Your task to perform on an android device: open chrome privacy settings Image 0: 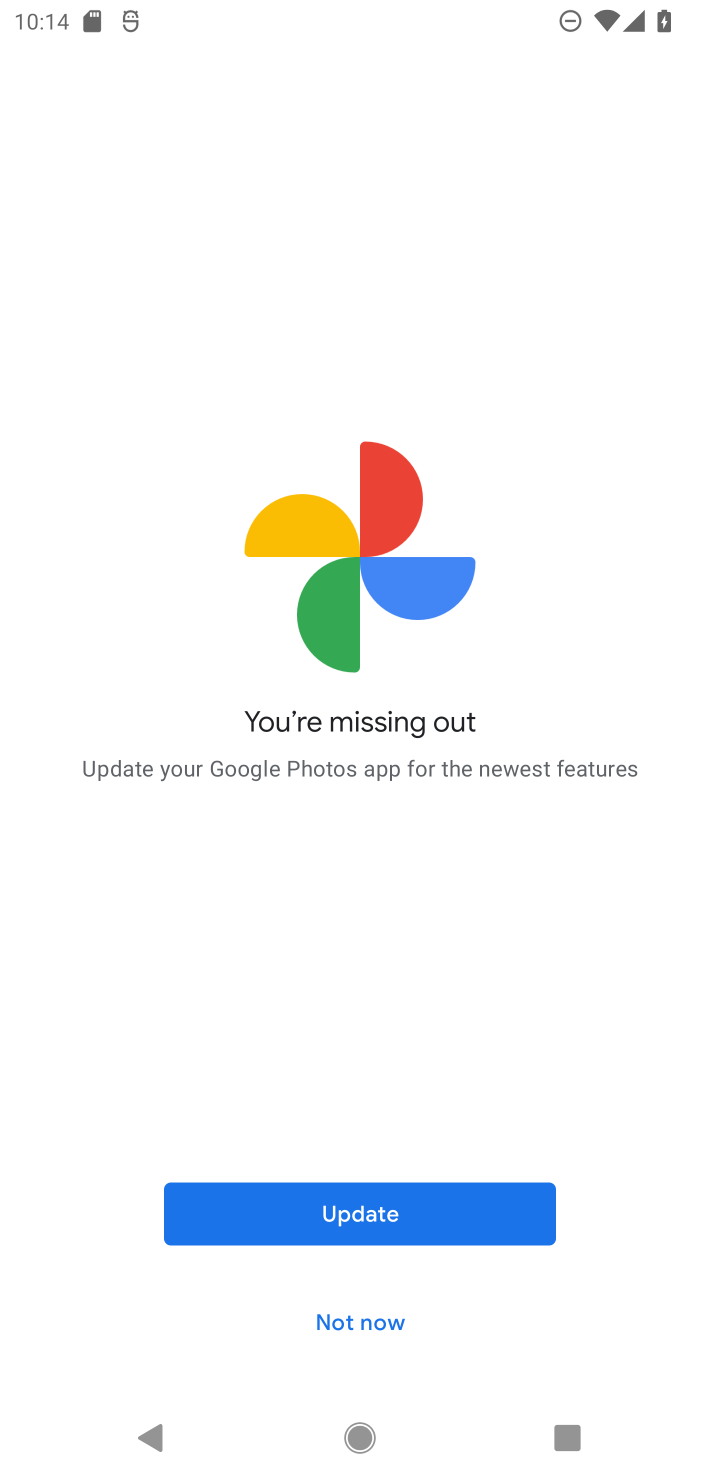
Step 0: click (352, 1427)
Your task to perform on an android device: open chrome privacy settings Image 1: 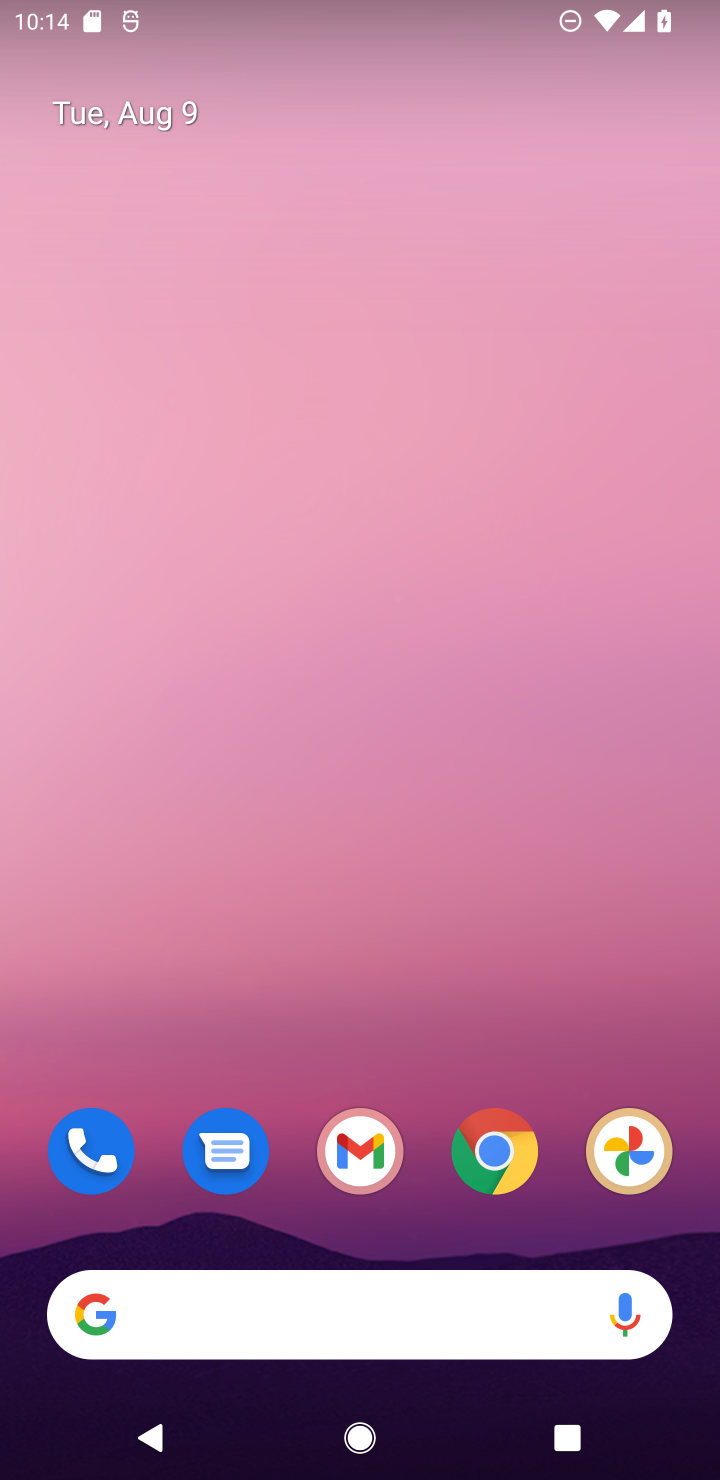
Step 1: click (513, 1149)
Your task to perform on an android device: open chrome privacy settings Image 2: 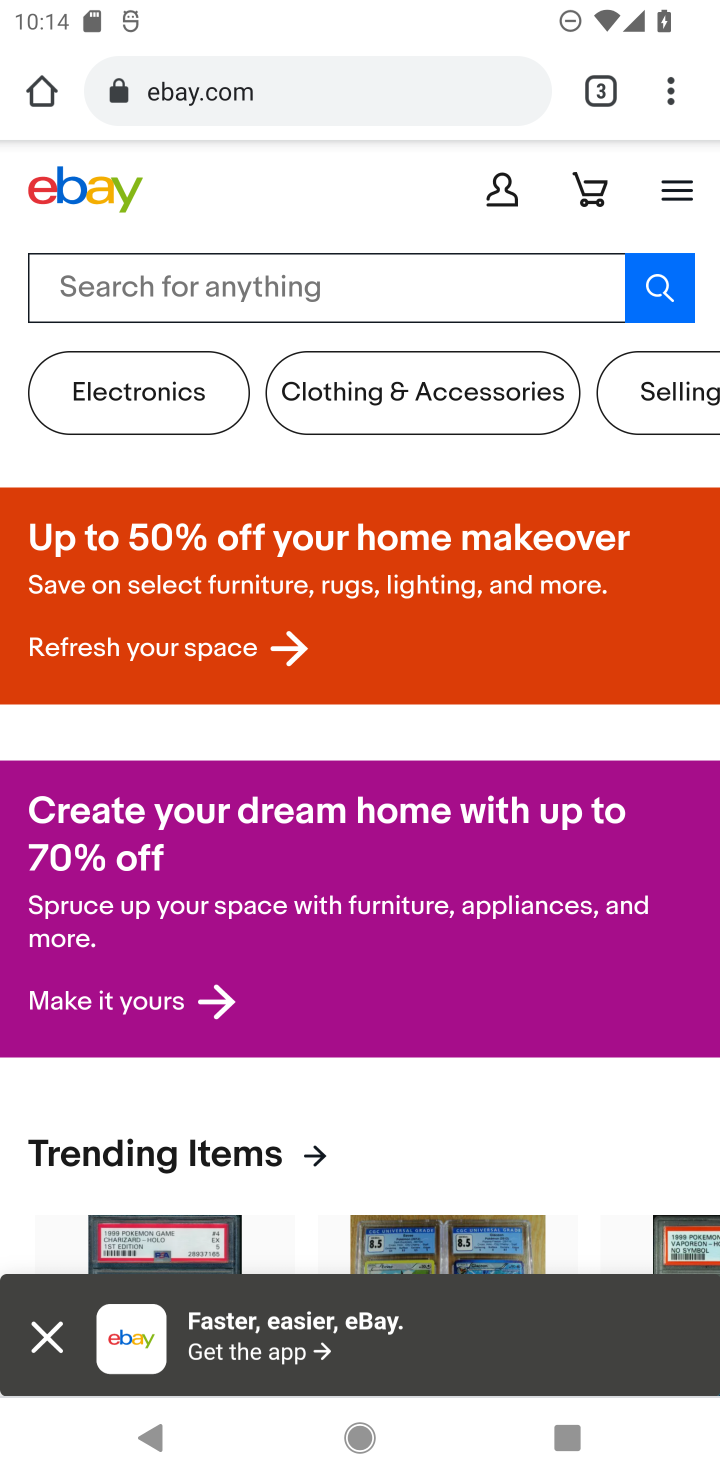
Step 2: click (658, 104)
Your task to perform on an android device: open chrome privacy settings Image 3: 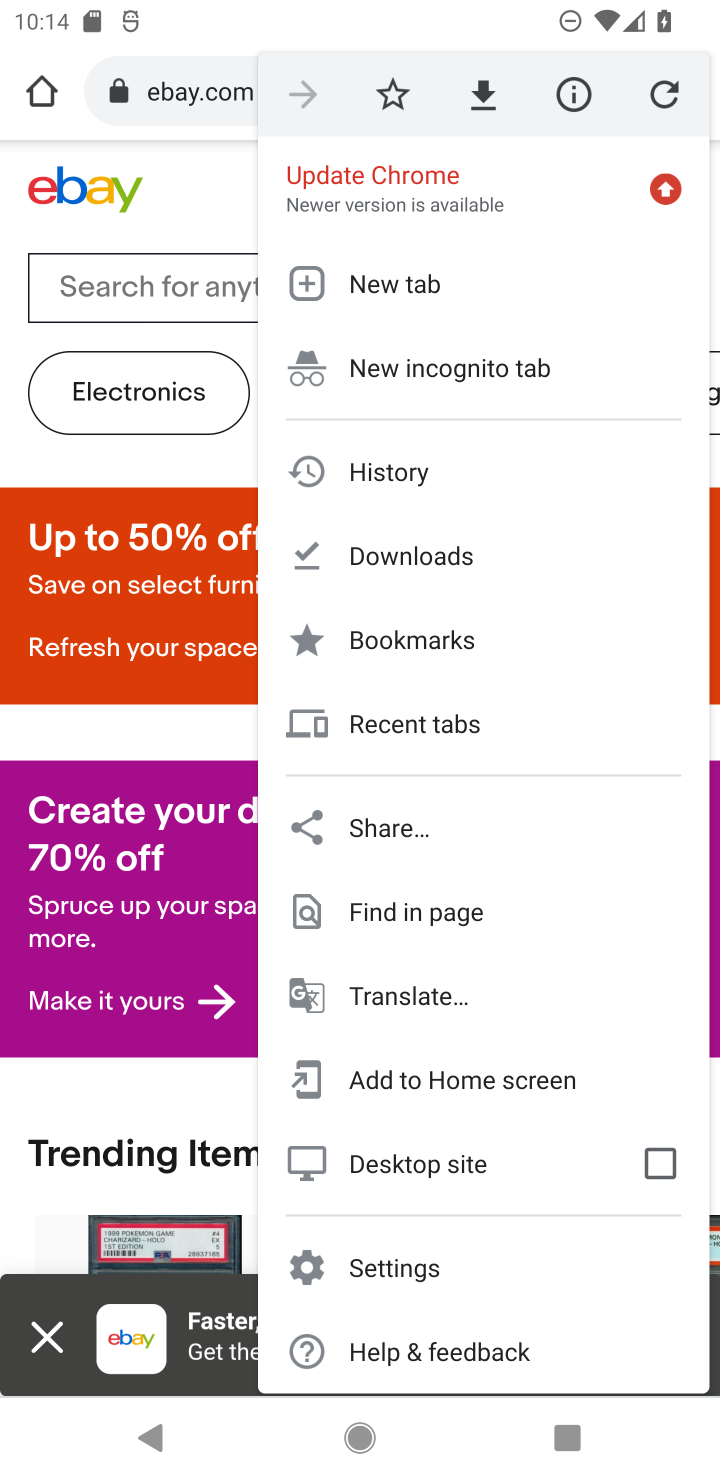
Step 3: click (401, 1254)
Your task to perform on an android device: open chrome privacy settings Image 4: 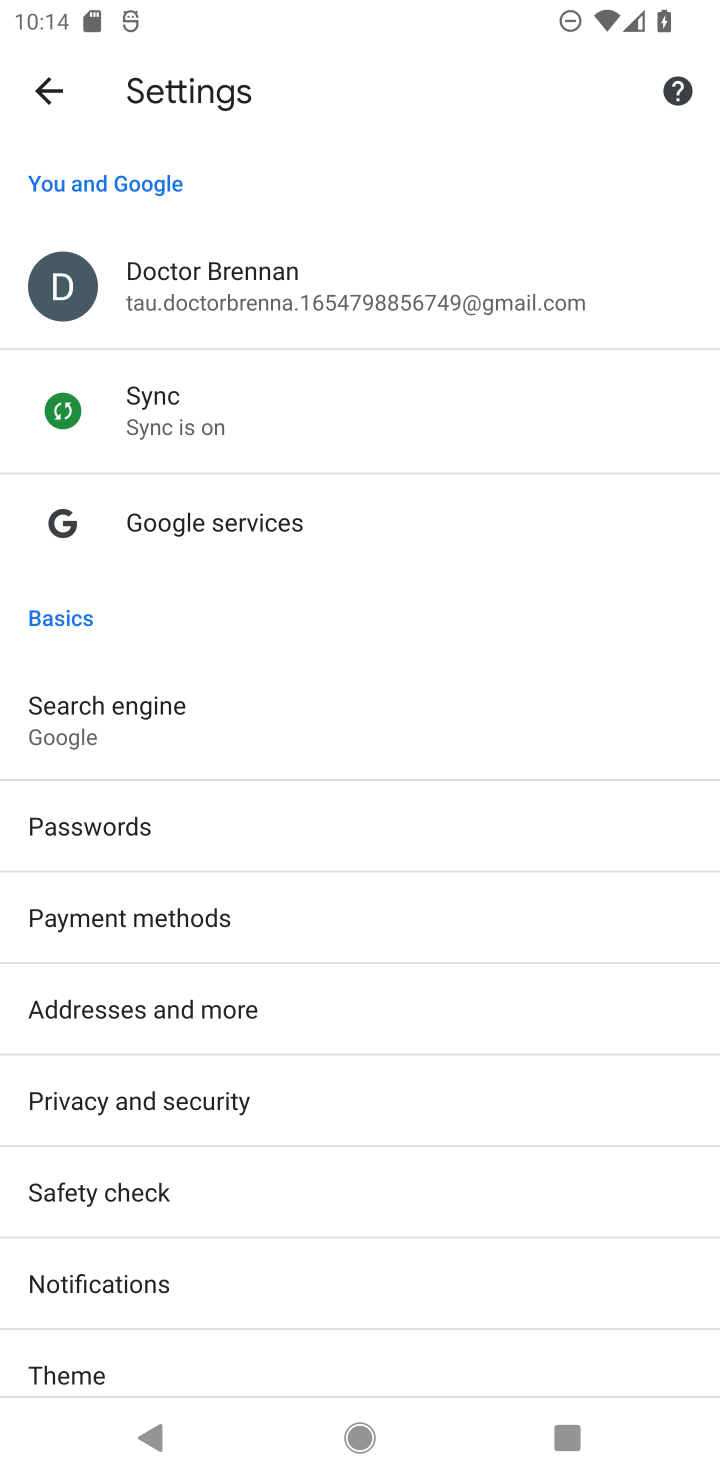
Step 4: drag from (433, 1256) to (402, 683)
Your task to perform on an android device: open chrome privacy settings Image 5: 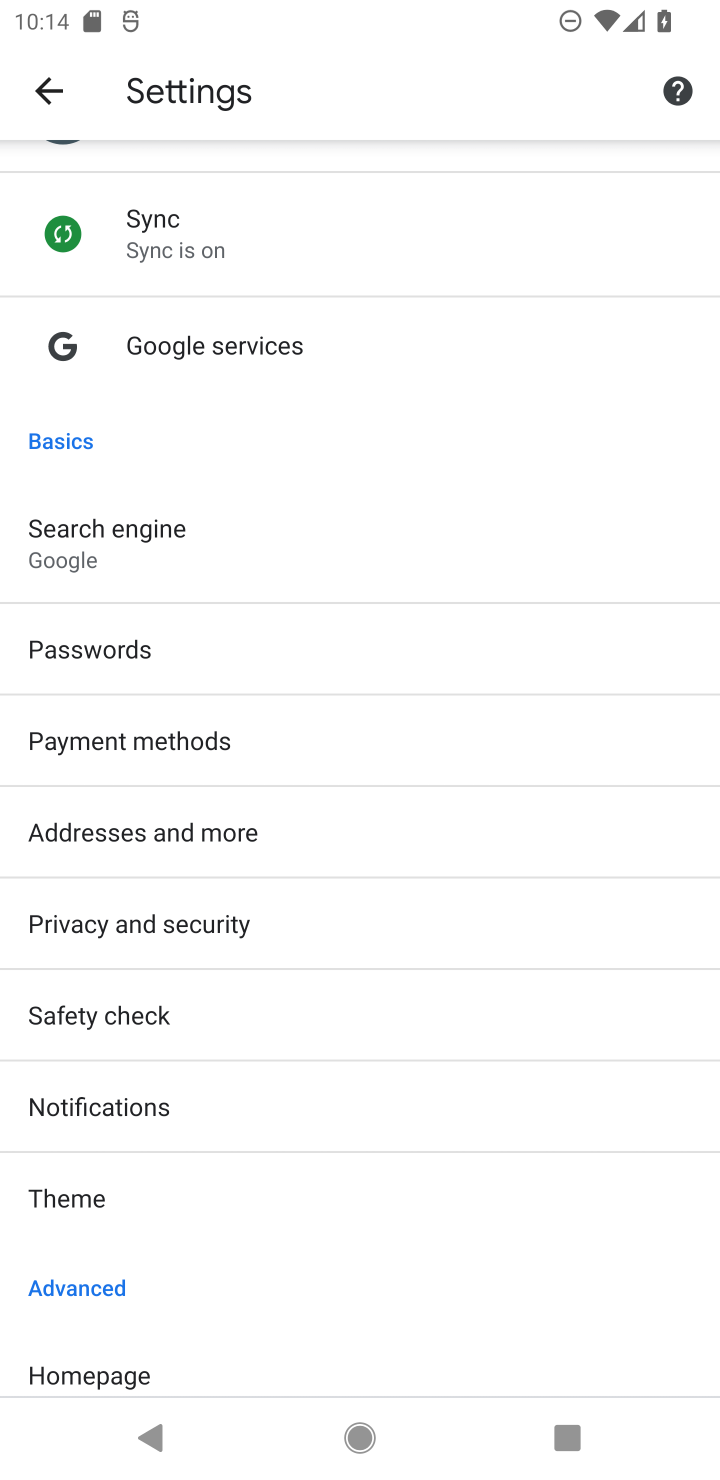
Step 5: drag from (272, 1197) to (318, 897)
Your task to perform on an android device: open chrome privacy settings Image 6: 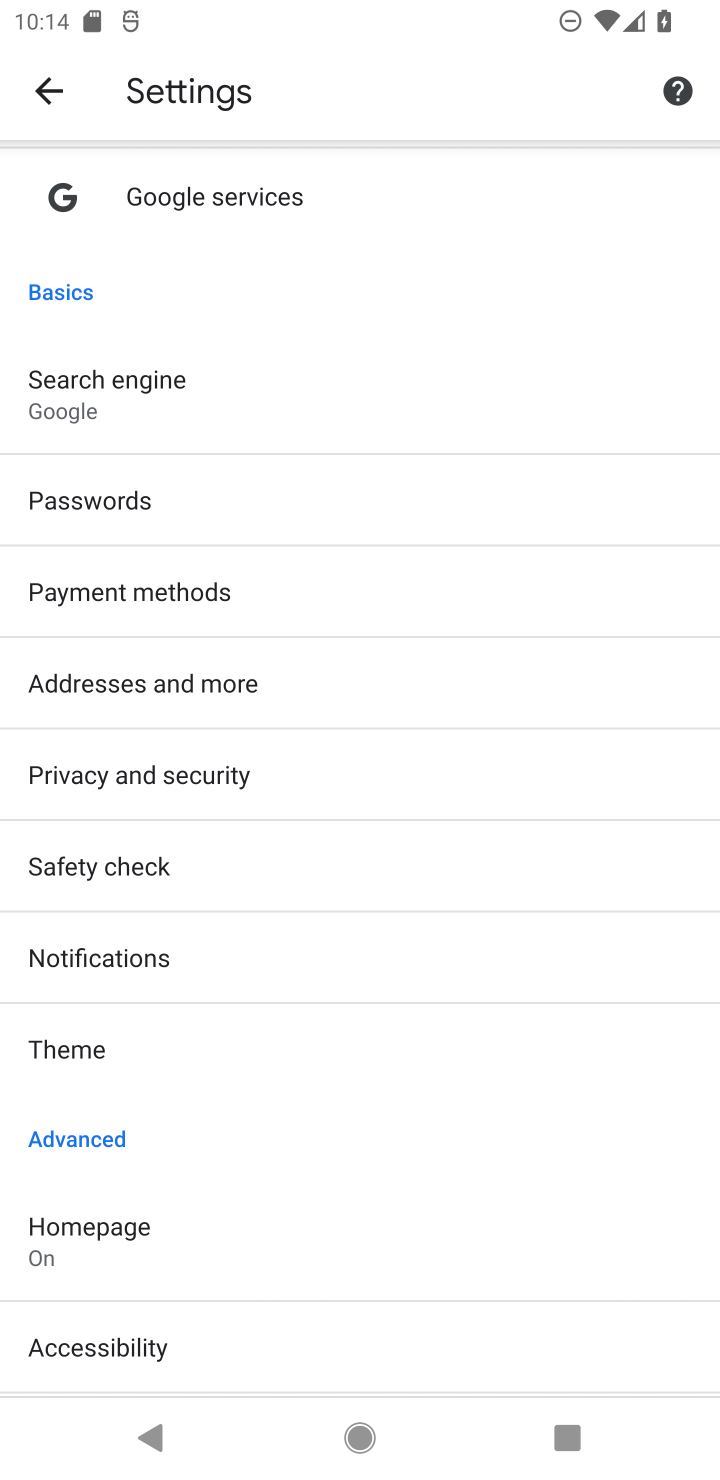
Step 6: click (142, 775)
Your task to perform on an android device: open chrome privacy settings Image 7: 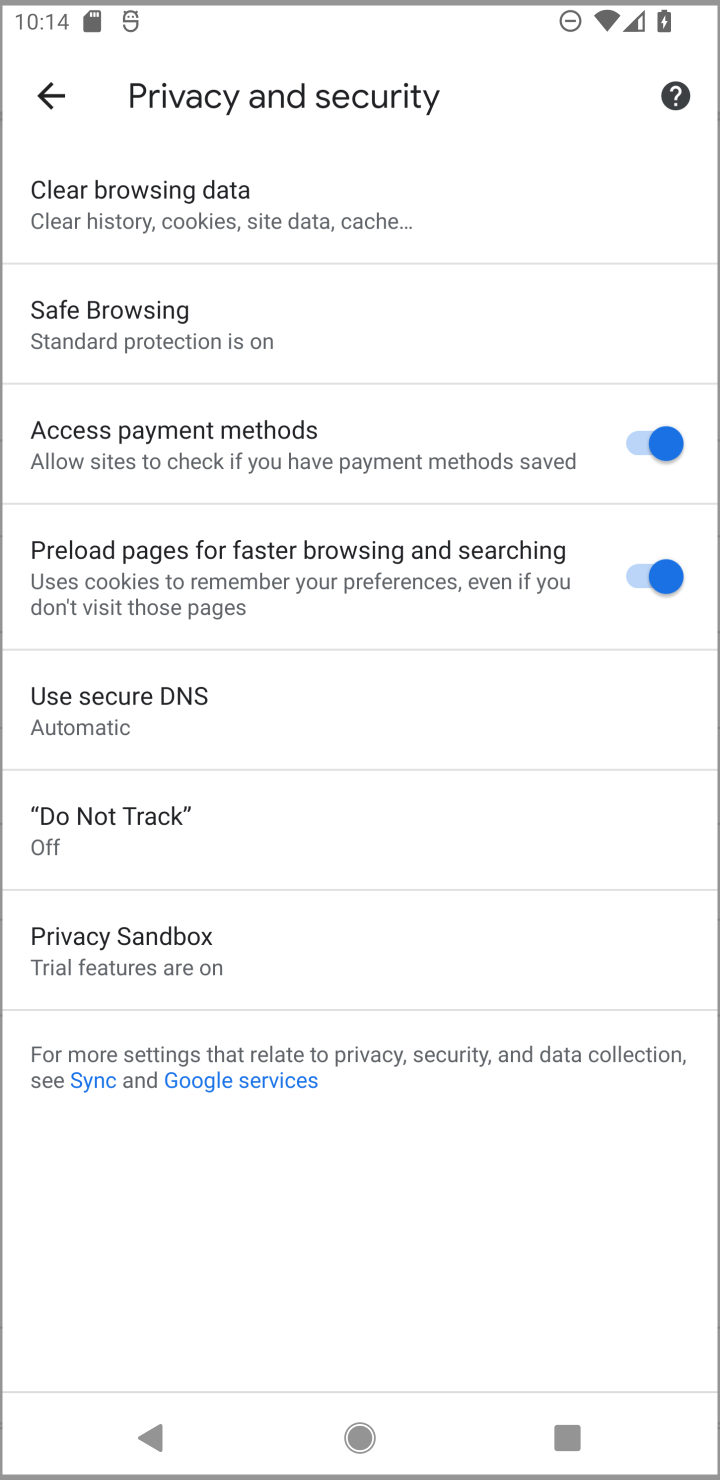
Step 7: task complete